Your task to perform on an android device: What's the weather going to be tomorrow? Image 0: 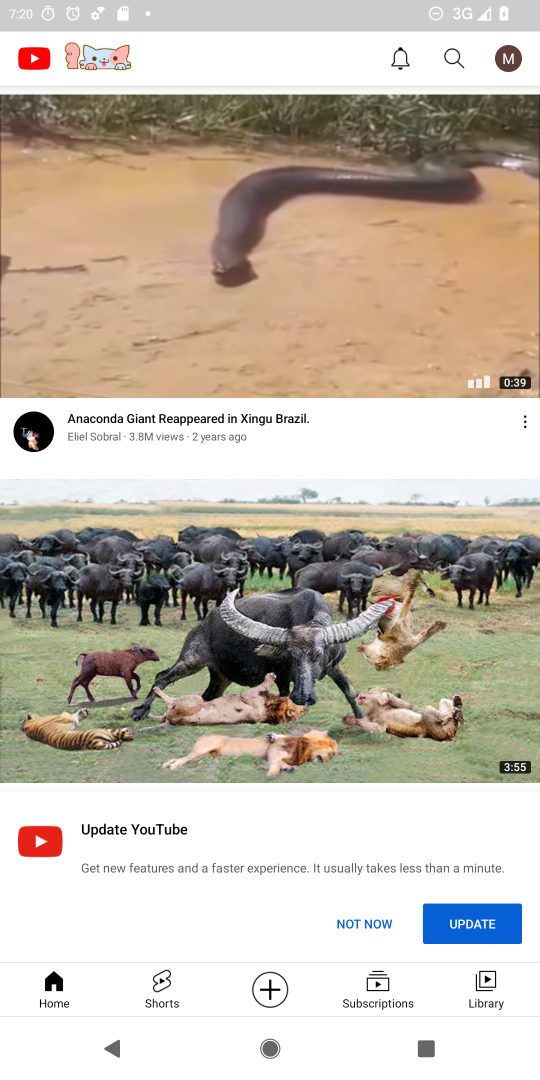
Step 0: press home button
Your task to perform on an android device: What's the weather going to be tomorrow? Image 1: 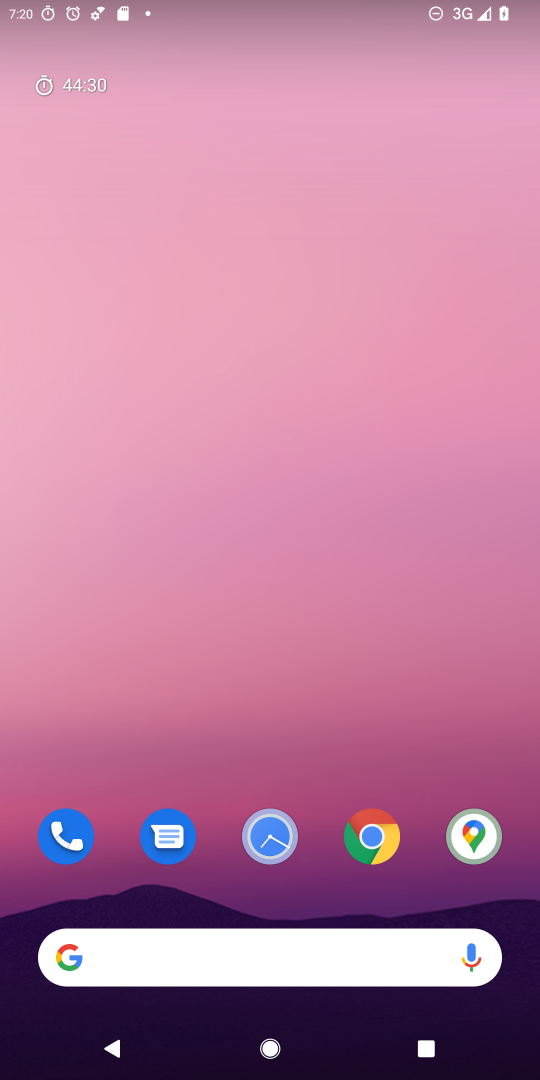
Step 1: drag from (405, 690) to (335, 25)
Your task to perform on an android device: What's the weather going to be tomorrow? Image 2: 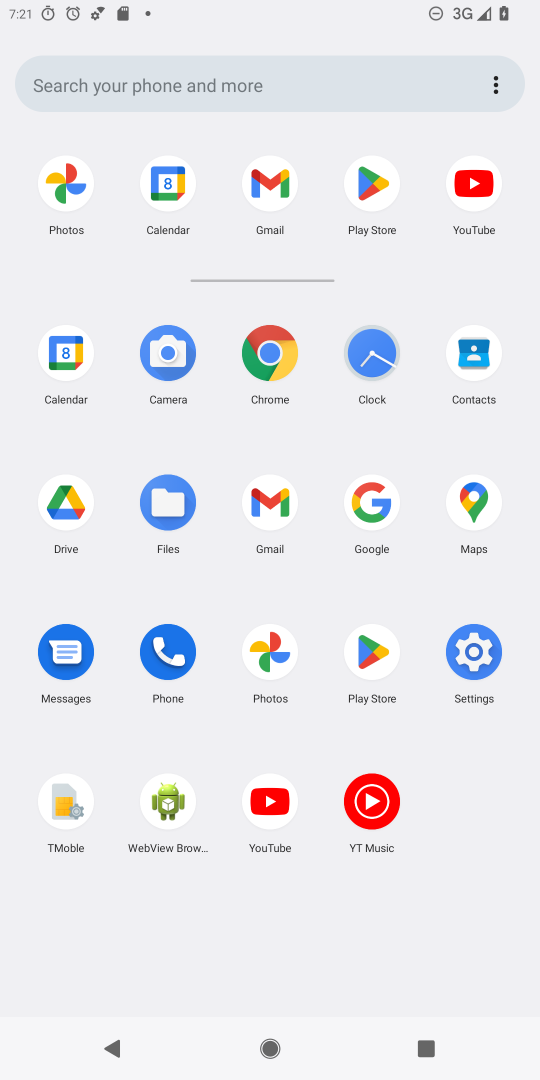
Step 2: click (243, 343)
Your task to perform on an android device: What's the weather going to be tomorrow? Image 3: 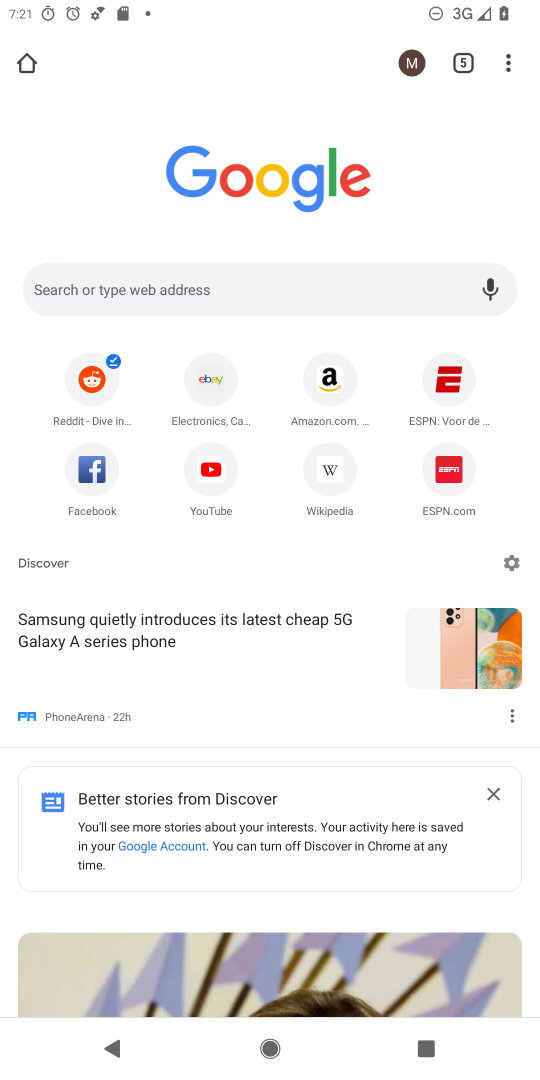
Step 3: click (267, 289)
Your task to perform on an android device: What's the weather going to be tomorrow? Image 4: 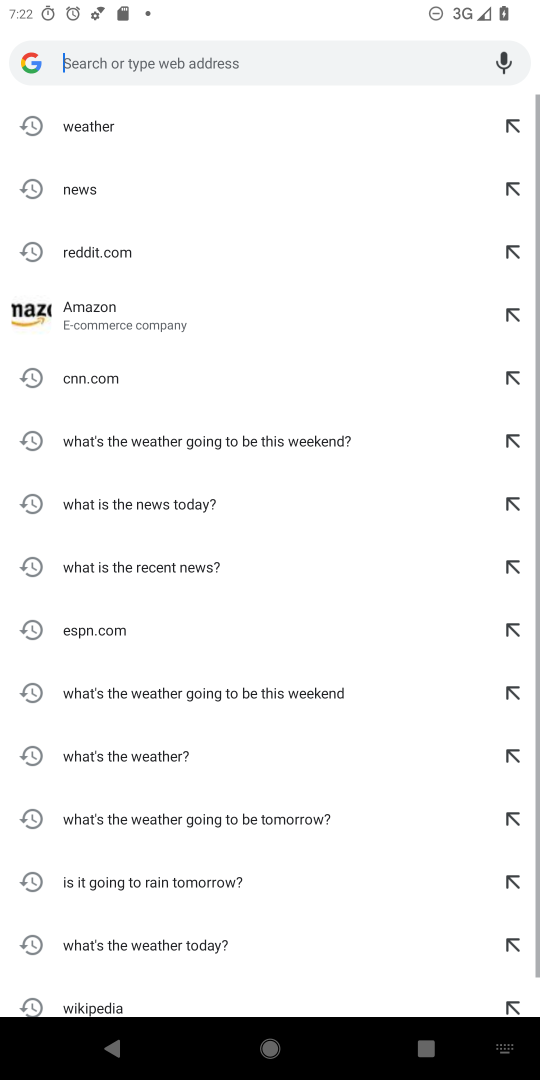
Step 4: click (179, 146)
Your task to perform on an android device: What's the weather going to be tomorrow? Image 5: 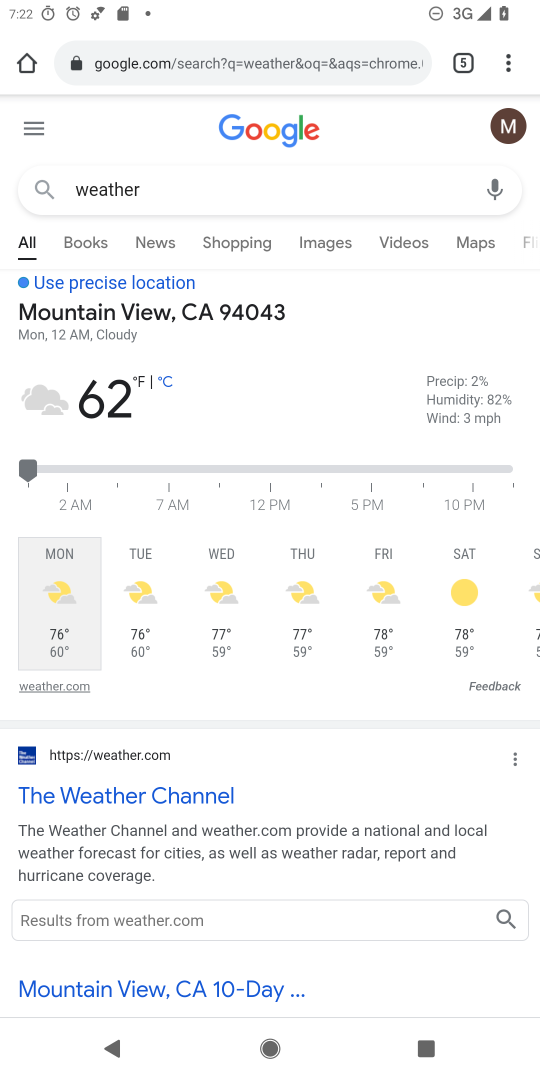
Step 5: task complete